Your task to perform on an android device: all mails in gmail Image 0: 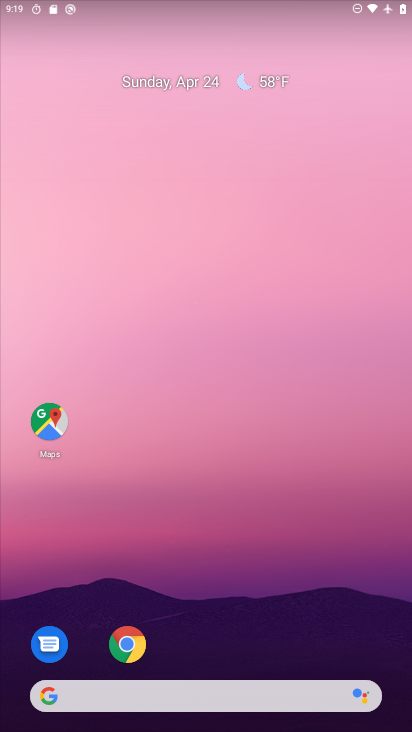
Step 0: drag from (204, 649) to (225, 70)
Your task to perform on an android device: all mails in gmail Image 1: 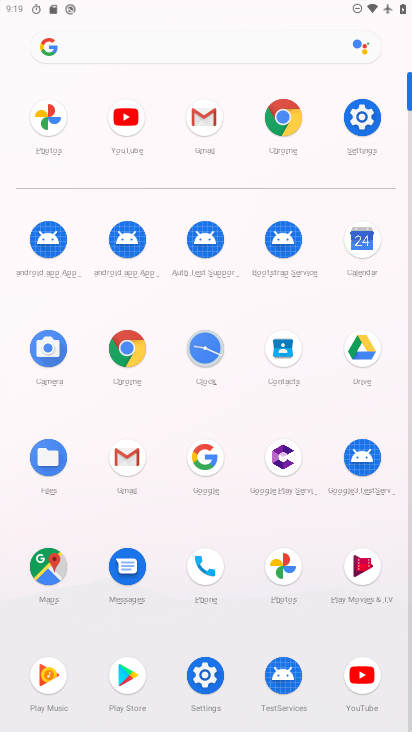
Step 1: click (204, 108)
Your task to perform on an android device: all mails in gmail Image 2: 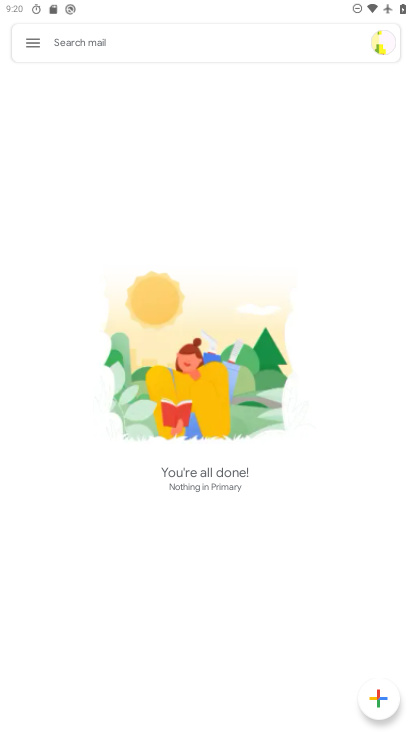
Step 2: click (33, 40)
Your task to perform on an android device: all mails in gmail Image 3: 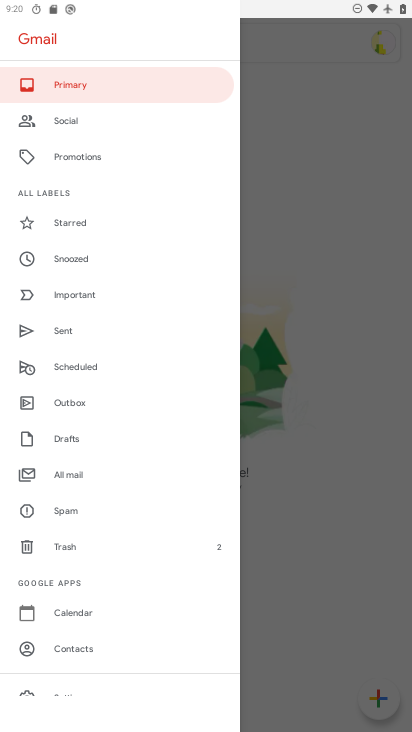
Step 3: click (91, 471)
Your task to perform on an android device: all mails in gmail Image 4: 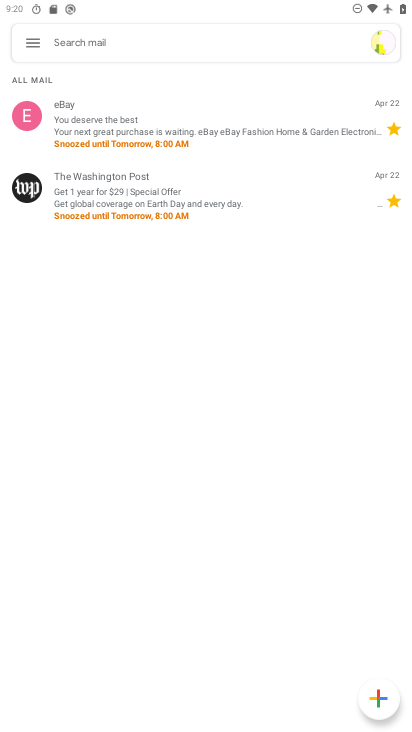
Step 4: task complete